Your task to perform on an android device: Search for pizza restaurants on Maps Image 0: 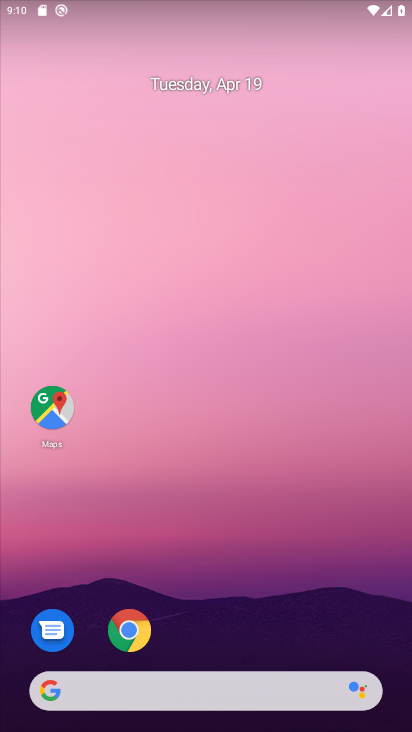
Step 0: drag from (301, 602) to (307, 114)
Your task to perform on an android device: Search for pizza restaurants on Maps Image 1: 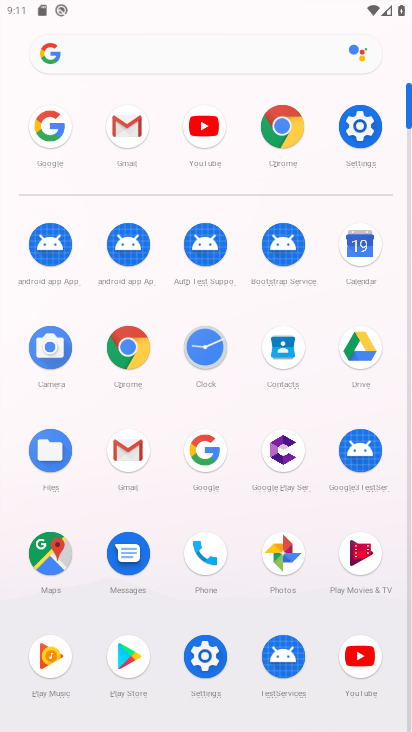
Step 1: click (59, 555)
Your task to perform on an android device: Search for pizza restaurants on Maps Image 2: 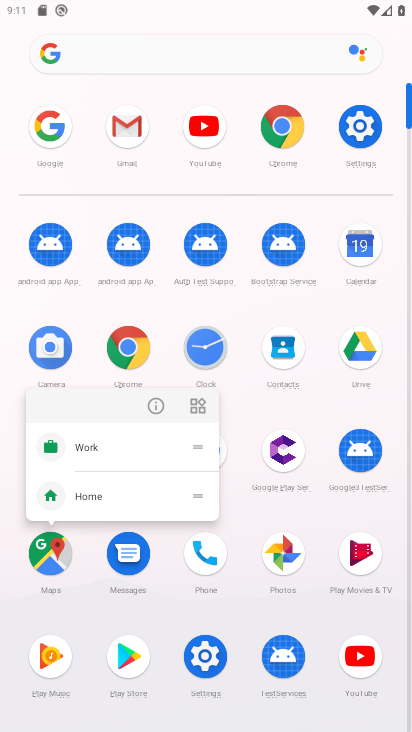
Step 2: click (63, 567)
Your task to perform on an android device: Search for pizza restaurants on Maps Image 3: 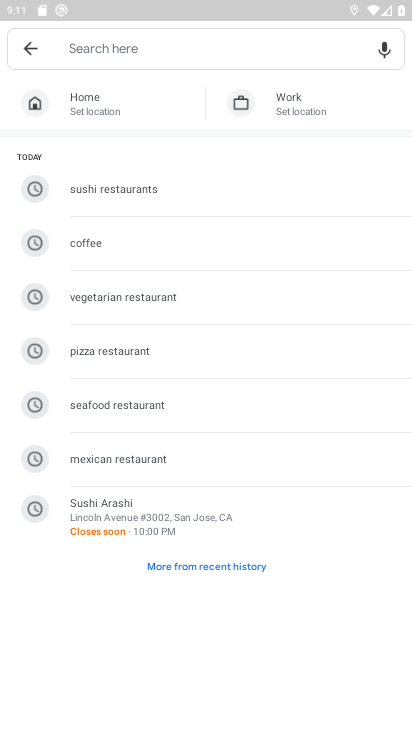
Step 3: click (154, 355)
Your task to perform on an android device: Search for pizza restaurants on Maps Image 4: 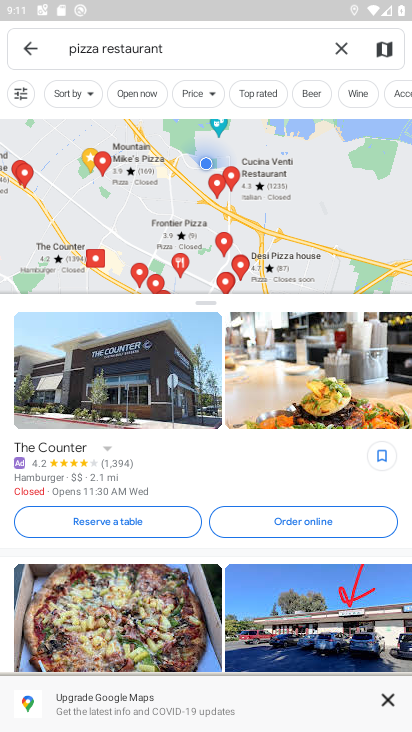
Step 4: task complete